Your task to perform on an android device: open sync settings in chrome Image 0: 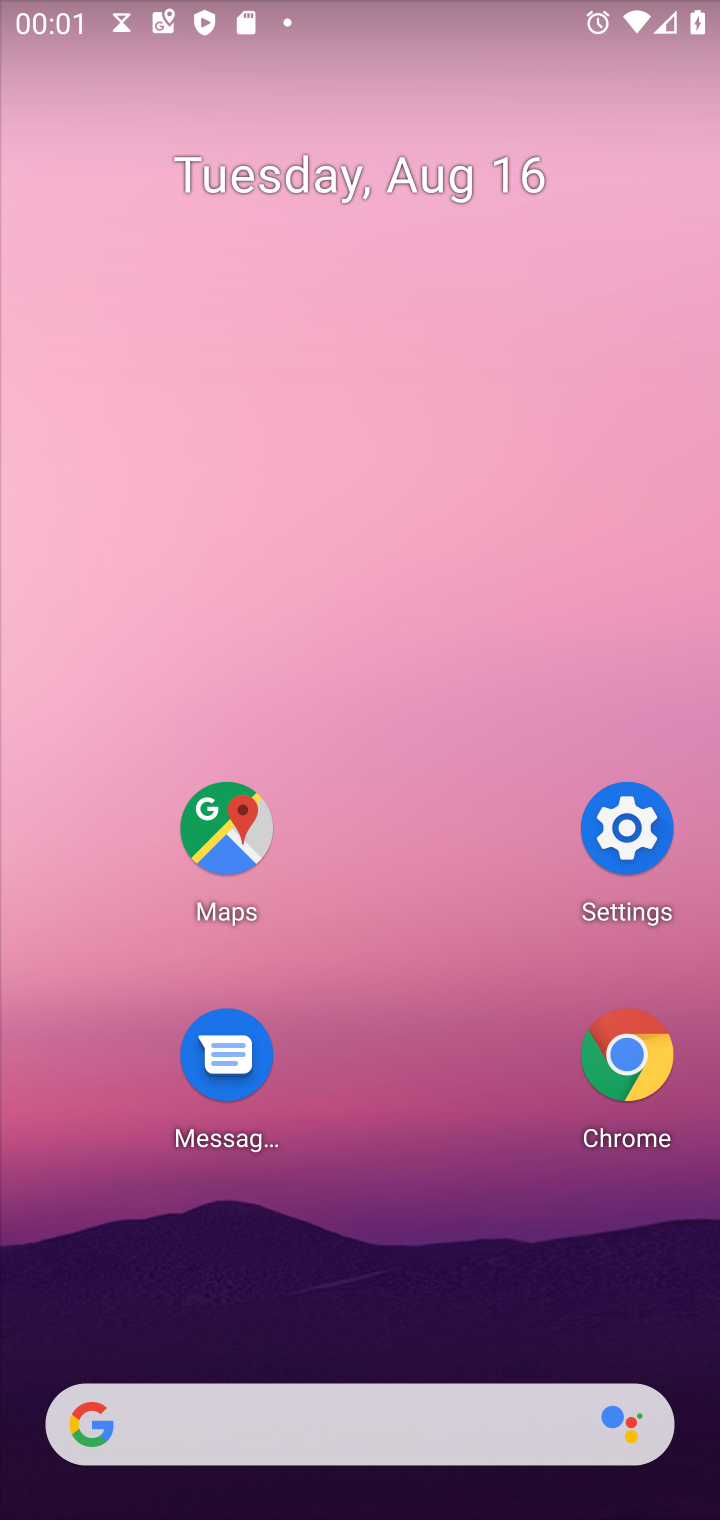
Step 0: click (630, 1058)
Your task to perform on an android device: open sync settings in chrome Image 1: 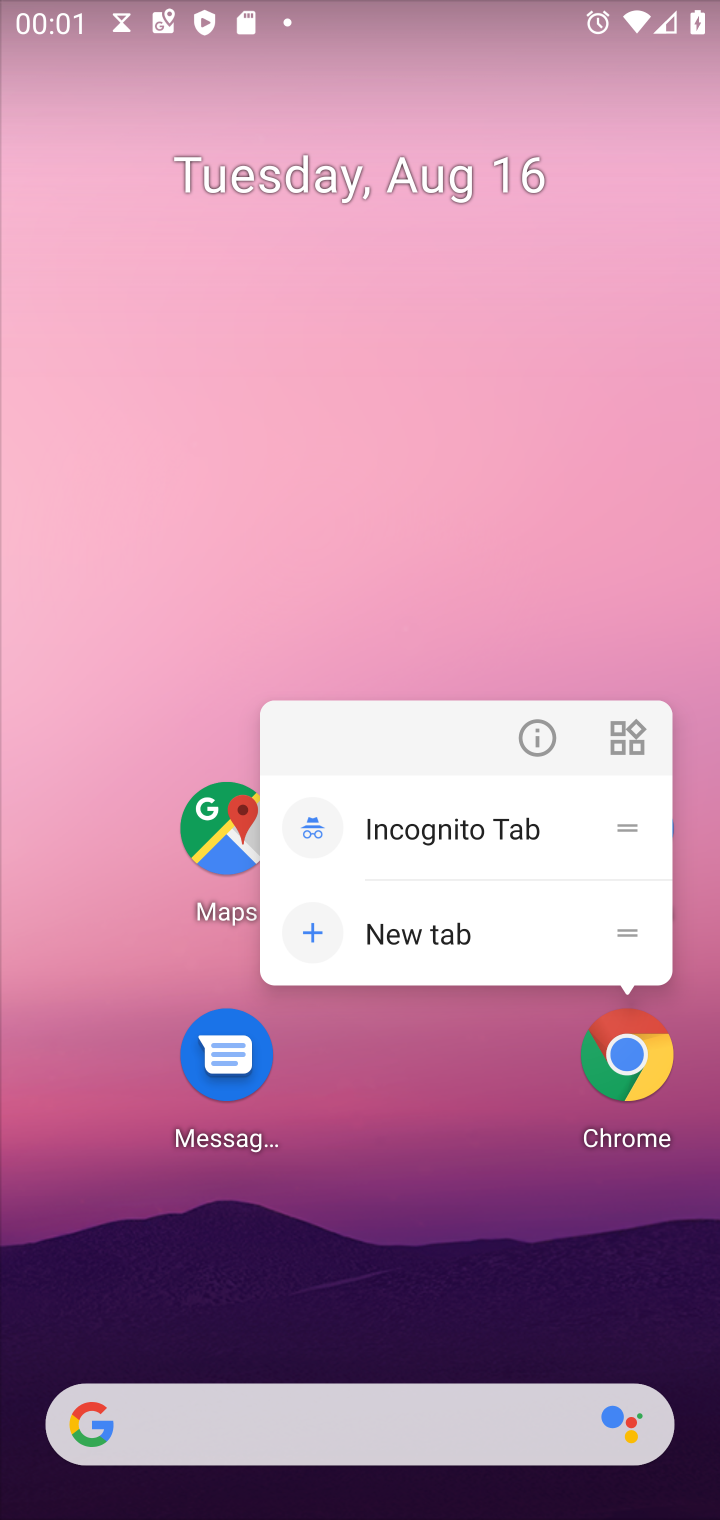
Step 1: click (630, 1067)
Your task to perform on an android device: open sync settings in chrome Image 2: 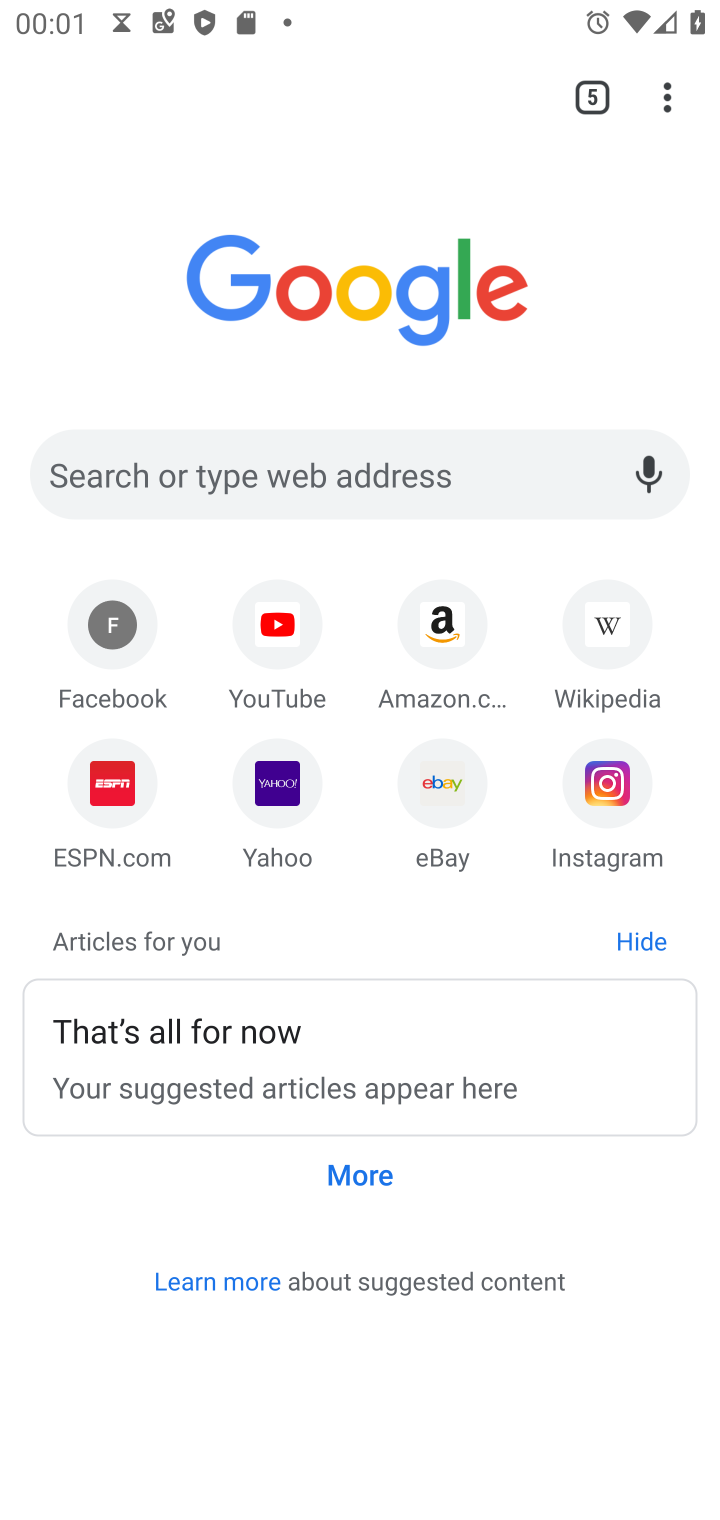
Step 2: drag from (660, 99) to (397, 816)
Your task to perform on an android device: open sync settings in chrome Image 3: 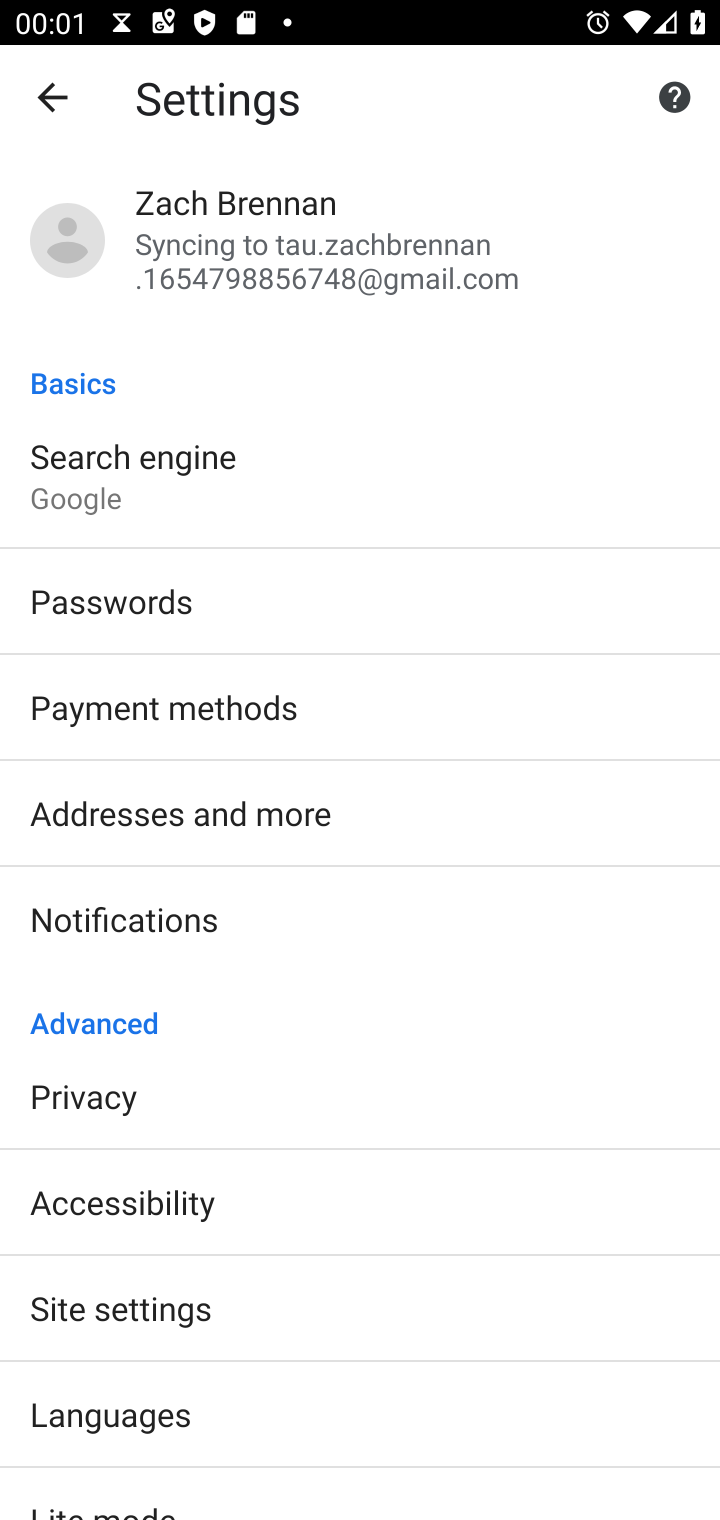
Step 3: click (348, 204)
Your task to perform on an android device: open sync settings in chrome Image 4: 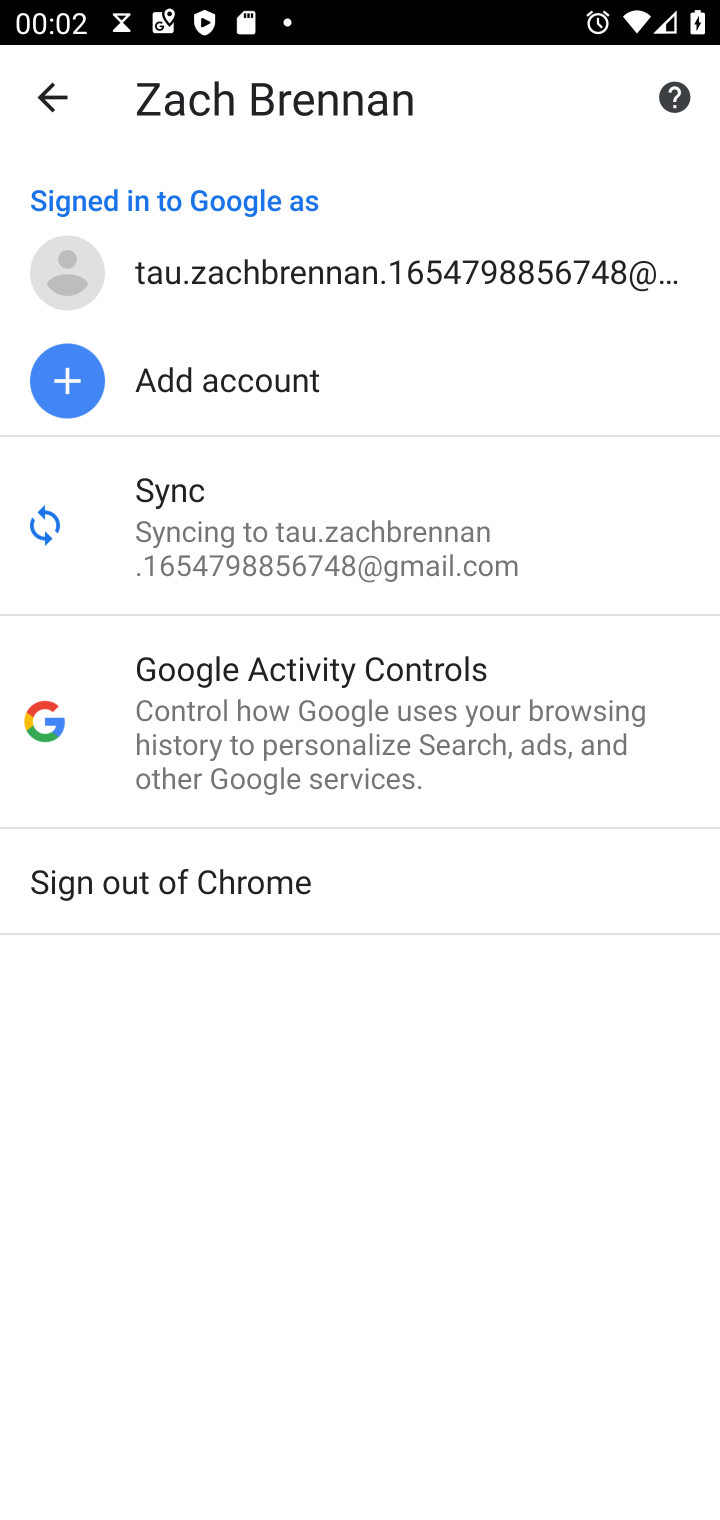
Step 4: click (314, 488)
Your task to perform on an android device: open sync settings in chrome Image 5: 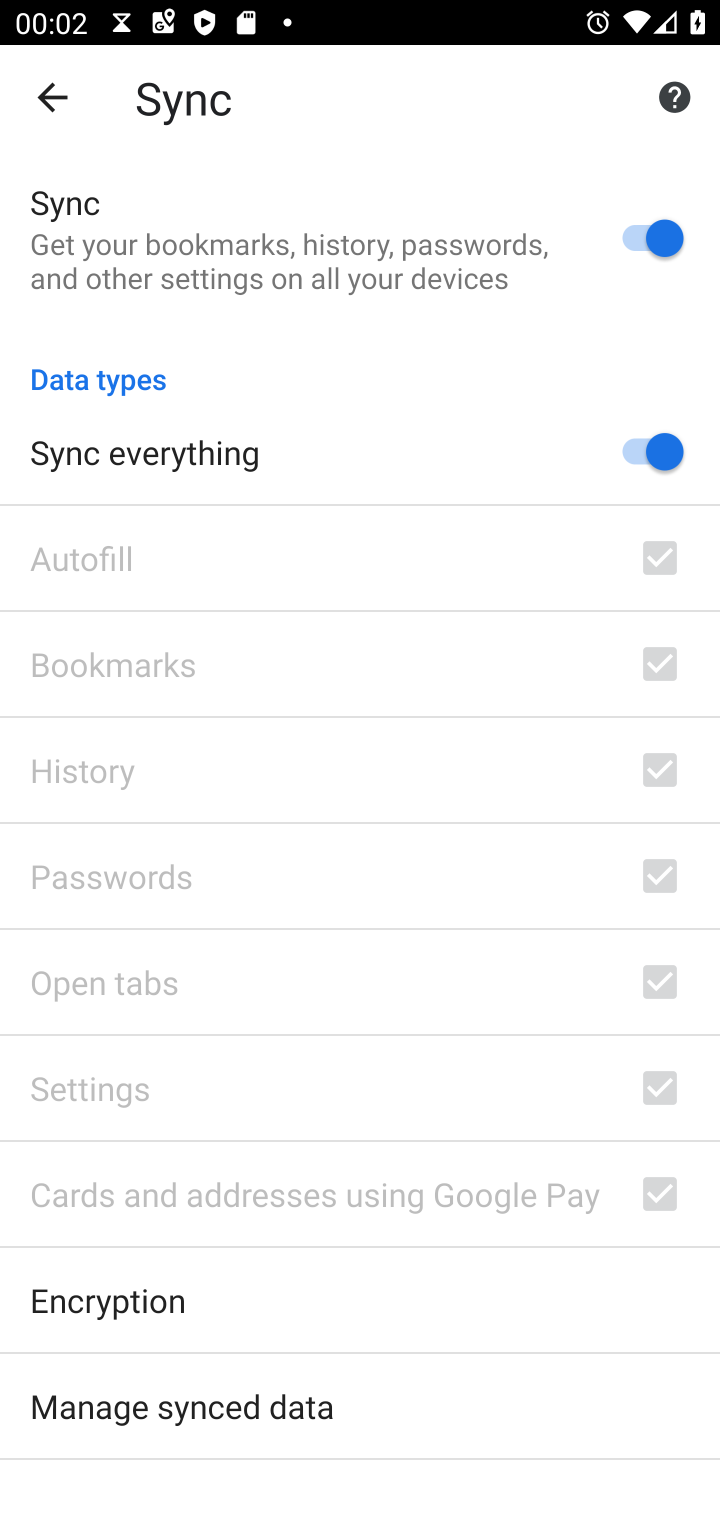
Step 5: task complete